Your task to perform on an android device: Open Google Maps and go to "Timeline" Image 0: 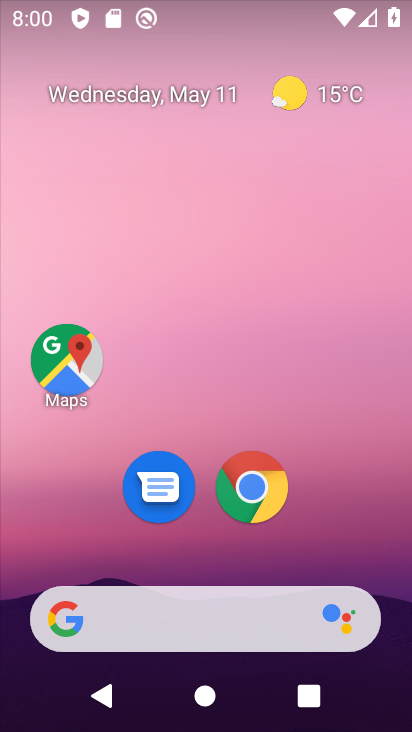
Step 0: drag from (247, 632) to (175, 241)
Your task to perform on an android device: Open Google Maps and go to "Timeline" Image 1: 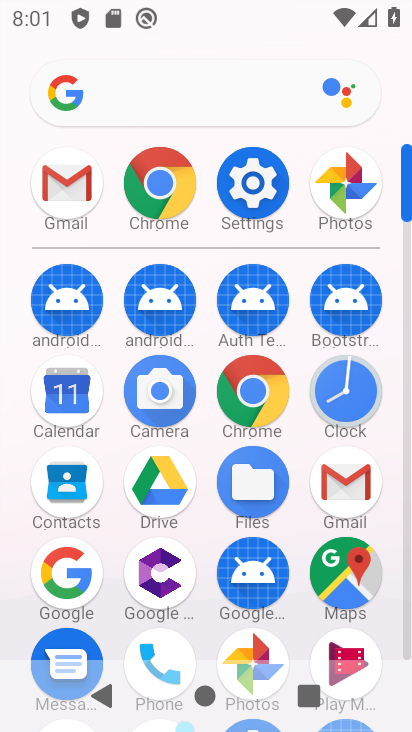
Step 1: click (331, 593)
Your task to perform on an android device: Open Google Maps and go to "Timeline" Image 2: 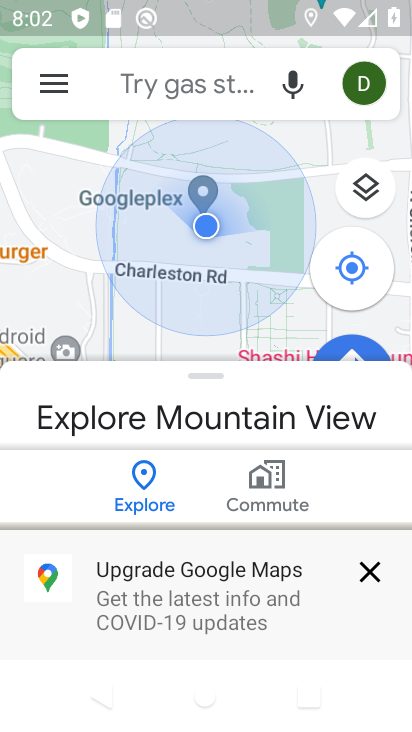
Step 2: click (372, 570)
Your task to perform on an android device: Open Google Maps and go to "Timeline" Image 3: 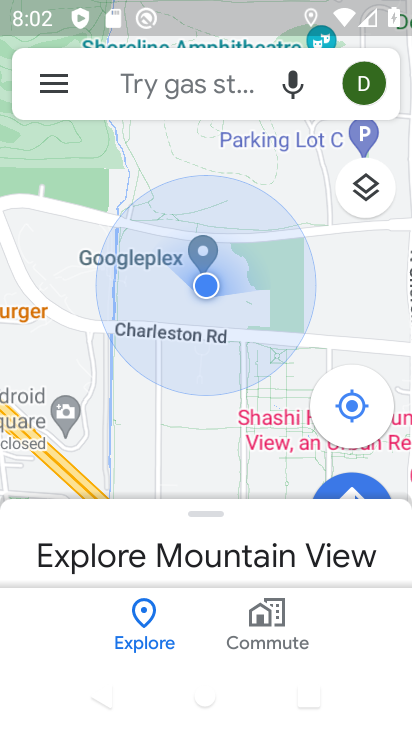
Step 3: click (49, 92)
Your task to perform on an android device: Open Google Maps and go to "Timeline" Image 4: 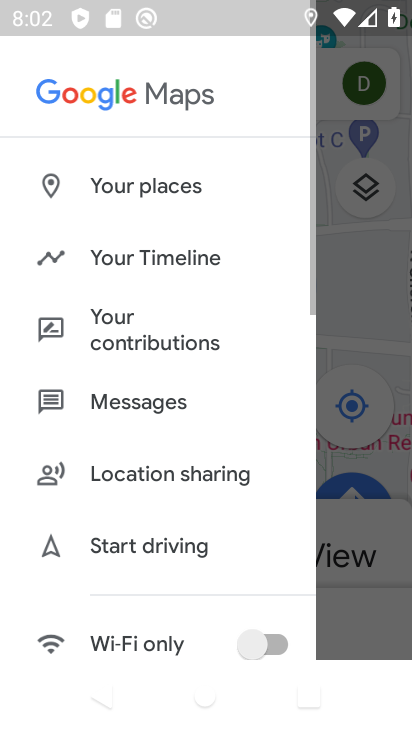
Step 4: click (182, 269)
Your task to perform on an android device: Open Google Maps and go to "Timeline" Image 5: 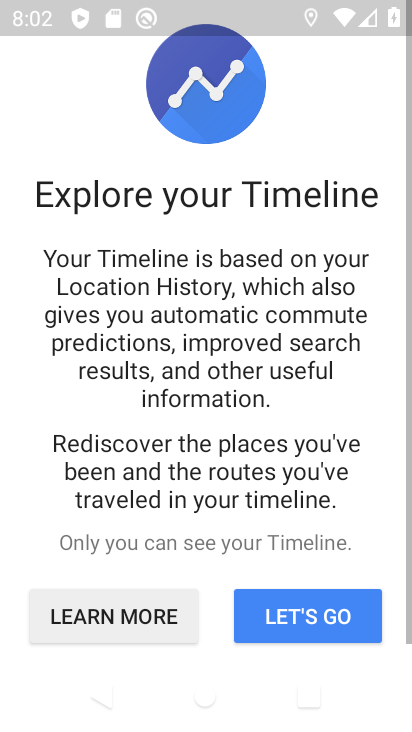
Step 5: task complete